Your task to perform on an android device: Go to settings Image 0: 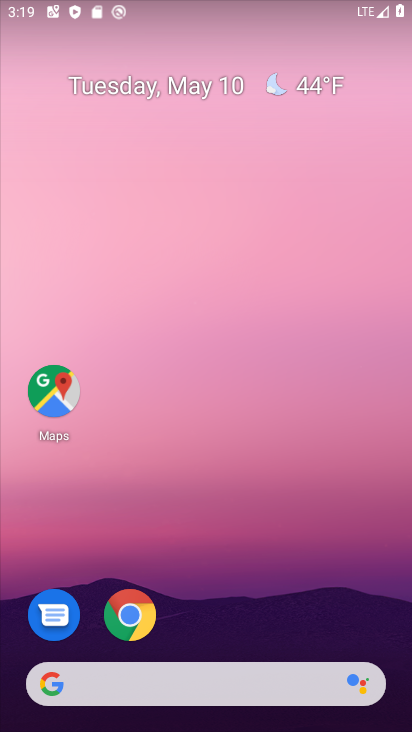
Step 0: drag from (217, 636) to (232, 103)
Your task to perform on an android device: Go to settings Image 1: 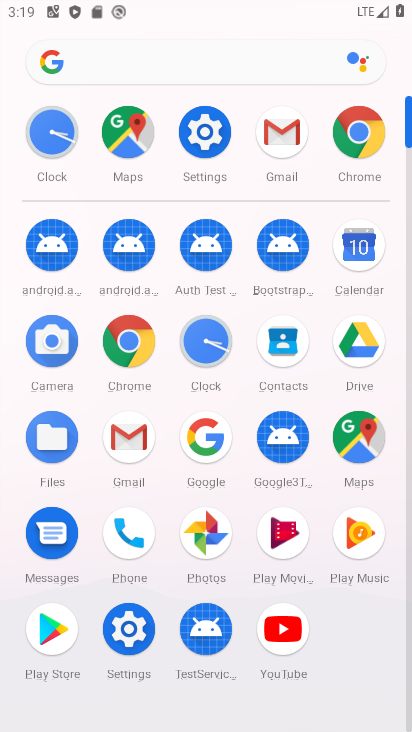
Step 1: click (120, 623)
Your task to perform on an android device: Go to settings Image 2: 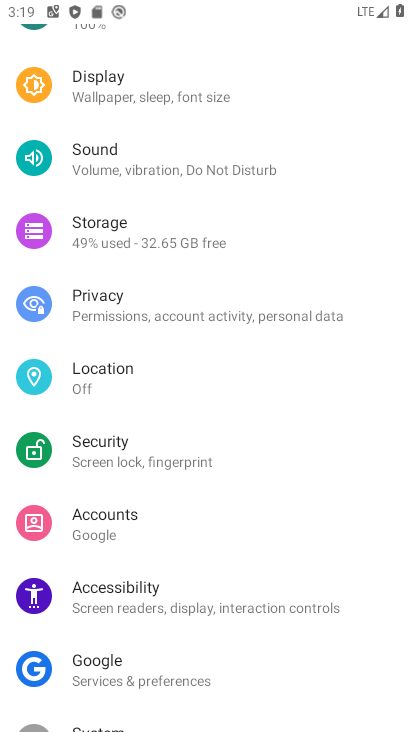
Step 2: task complete